Your task to perform on an android device: star an email in the gmail app Image 0: 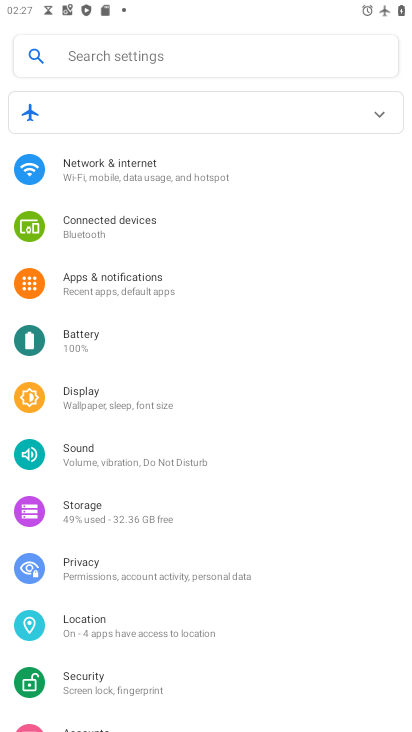
Step 0: press home button
Your task to perform on an android device: star an email in the gmail app Image 1: 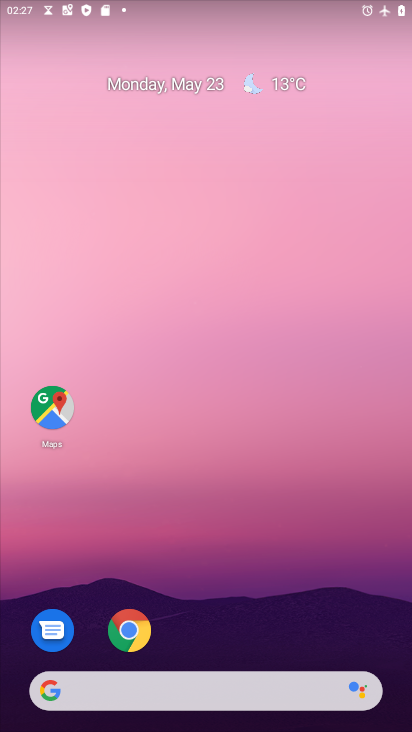
Step 1: drag from (287, 594) to (183, 91)
Your task to perform on an android device: star an email in the gmail app Image 2: 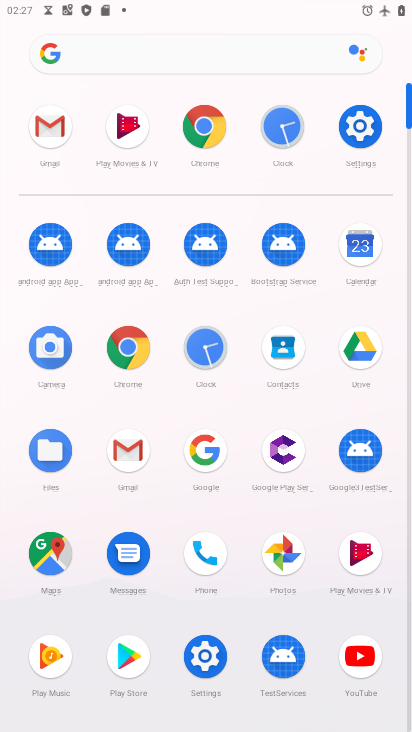
Step 2: click (126, 455)
Your task to perform on an android device: star an email in the gmail app Image 3: 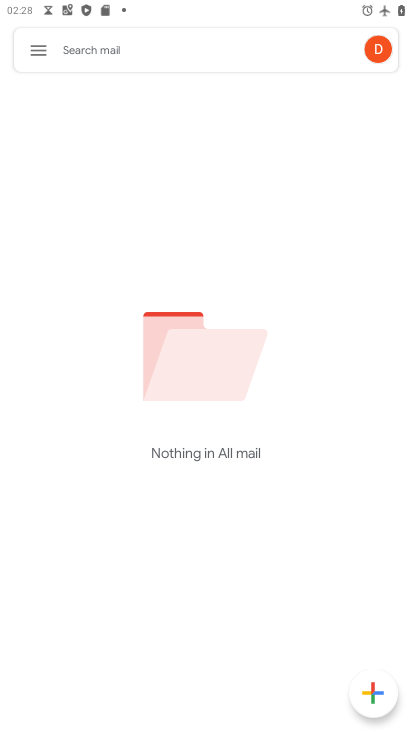
Step 3: click (38, 49)
Your task to perform on an android device: star an email in the gmail app Image 4: 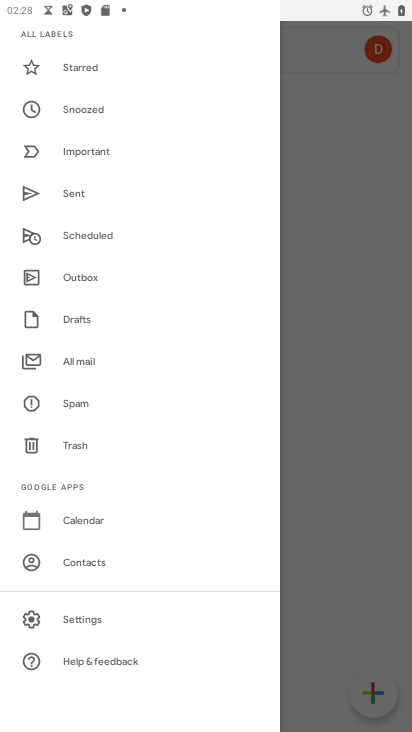
Step 4: click (105, 365)
Your task to perform on an android device: star an email in the gmail app Image 5: 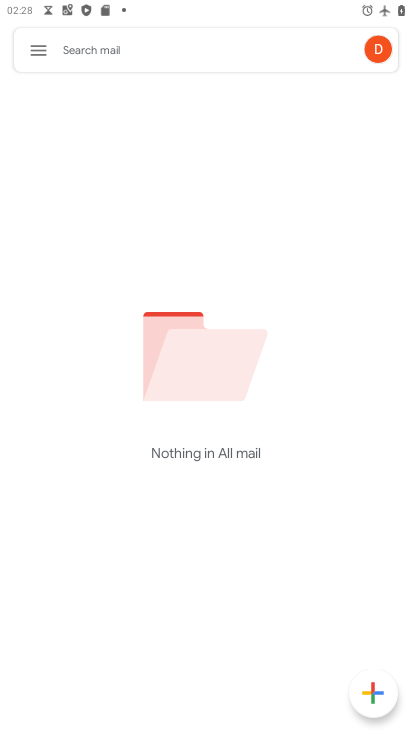
Step 5: task complete